Your task to perform on an android device: toggle airplane mode Image 0: 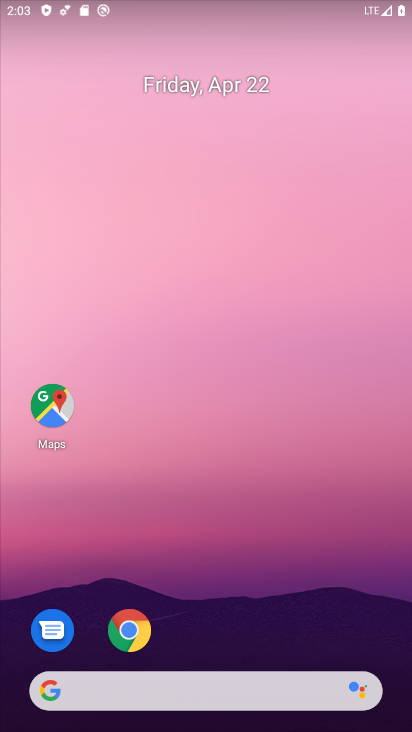
Step 0: drag from (382, 581) to (350, 189)
Your task to perform on an android device: toggle airplane mode Image 1: 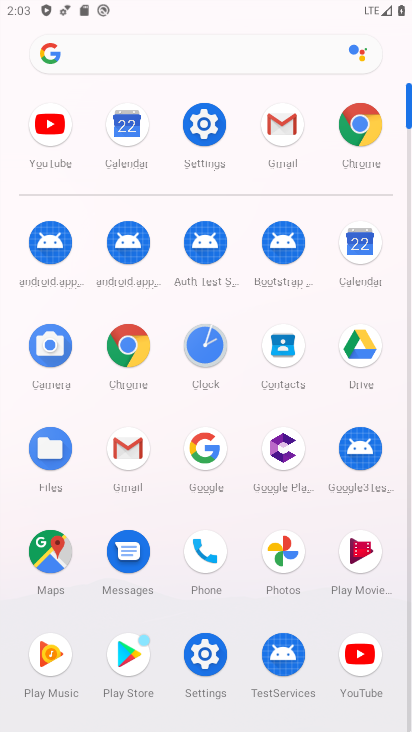
Step 1: click (215, 653)
Your task to perform on an android device: toggle airplane mode Image 2: 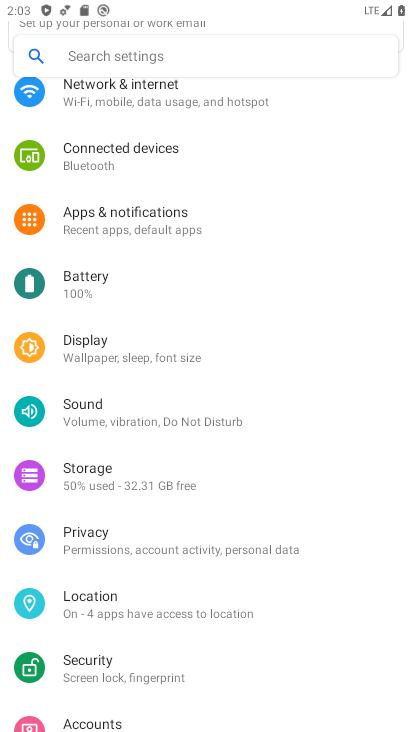
Step 2: click (236, 101)
Your task to perform on an android device: toggle airplane mode Image 3: 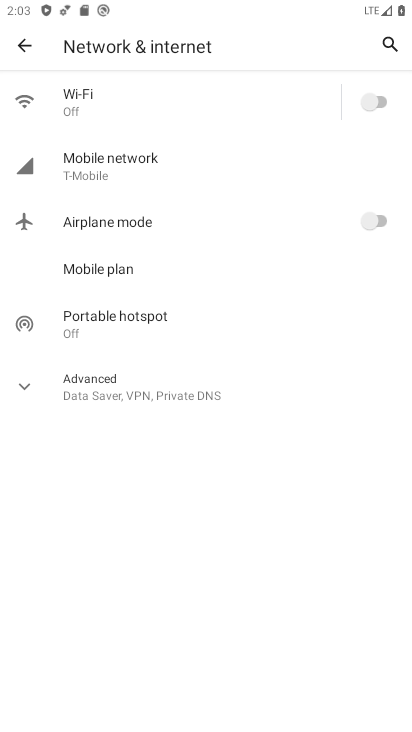
Step 3: click (384, 226)
Your task to perform on an android device: toggle airplane mode Image 4: 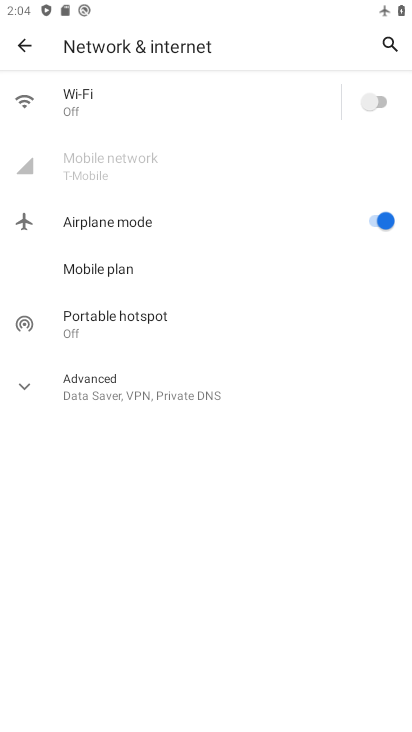
Step 4: task complete